Your task to perform on an android device: clear all cookies in the chrome app Image 0: 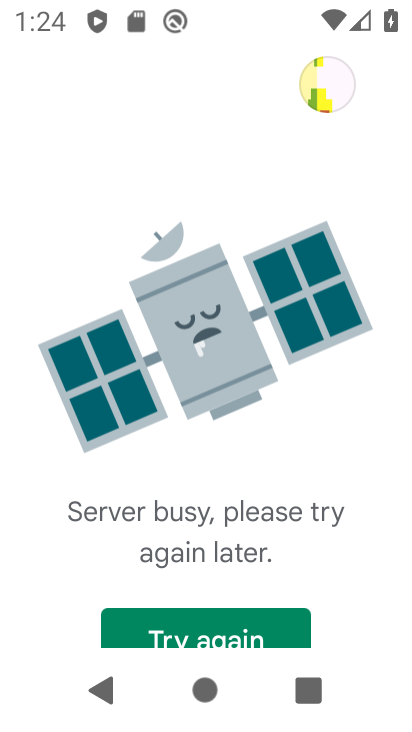
Step 0: press home button
Your task to perform on an android device: clear all cookies in the chrome app Image 1: 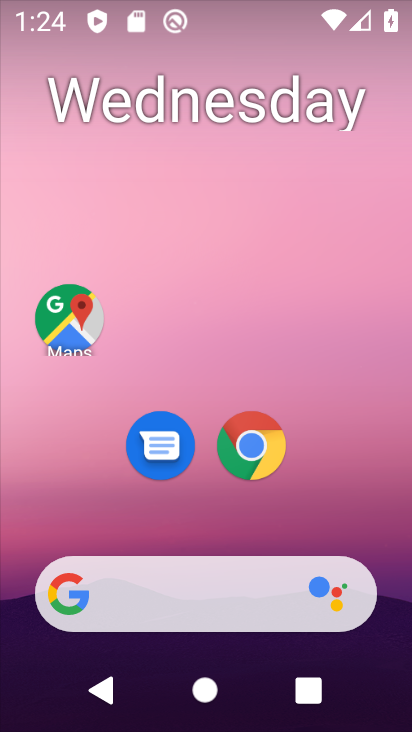
Step 1: drag from (204, 559) to (309, 23)
Your task to perform on an android device: clear all cookies in the chrome app Image 2: 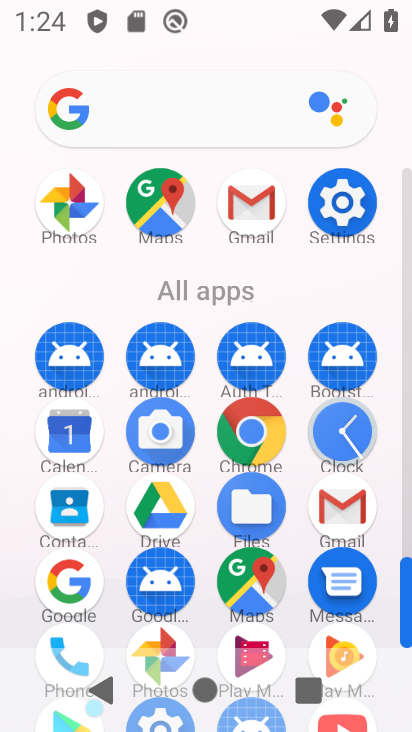
Step 2: click (263, 429)
Your task to perform on an android device: clear all cookies in the chrome app Image 3: 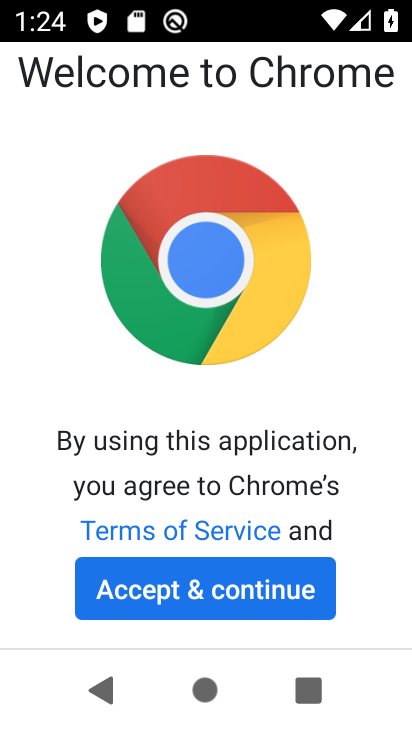
Step 3: click (232, 574)
Your task to perform on an android device: clear all cookies in the chrome app Image 4: 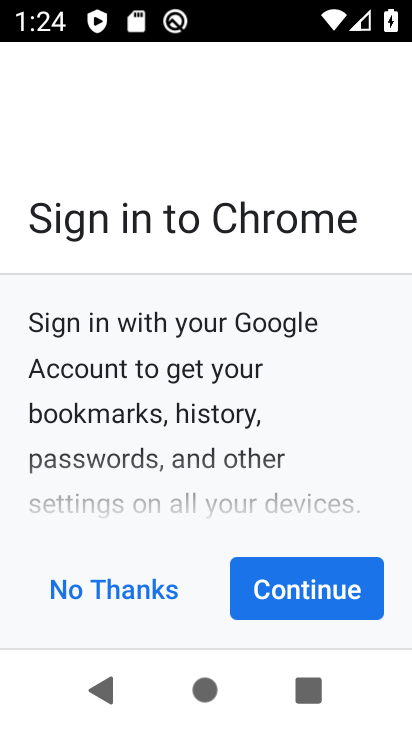
Step 4: click (272, 579)
Your task to perform on an android device: clear all cookies in the chrome app Image 5: 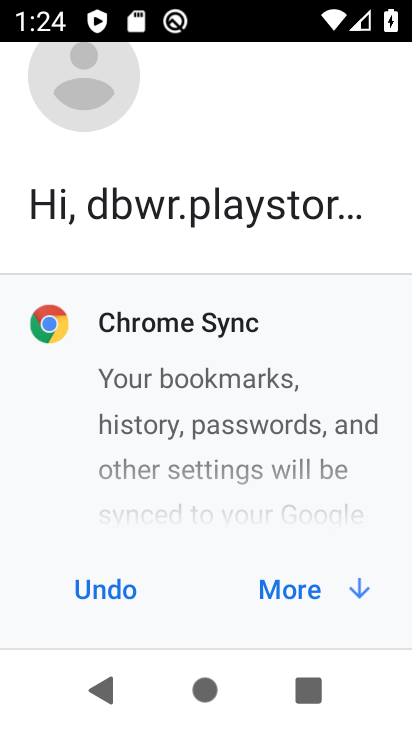
Step 5: click (273, 582)
Your task to perform on an android device: clear all cookies in the chrome app Image 6: 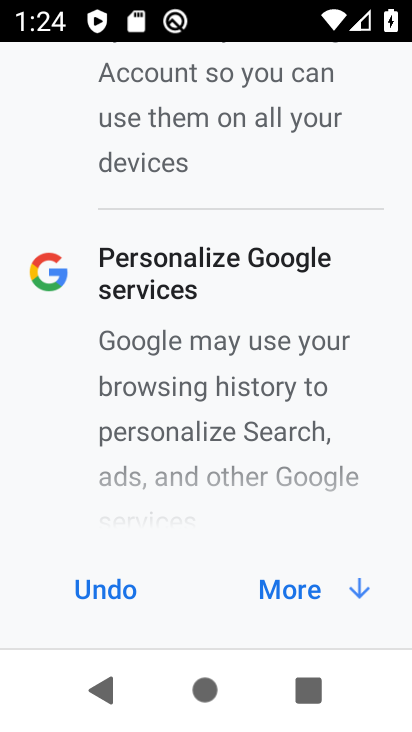
Step 6: click (315, 592)
Your task to perform on an android device: clear all cookies in the chrome app Image 7: 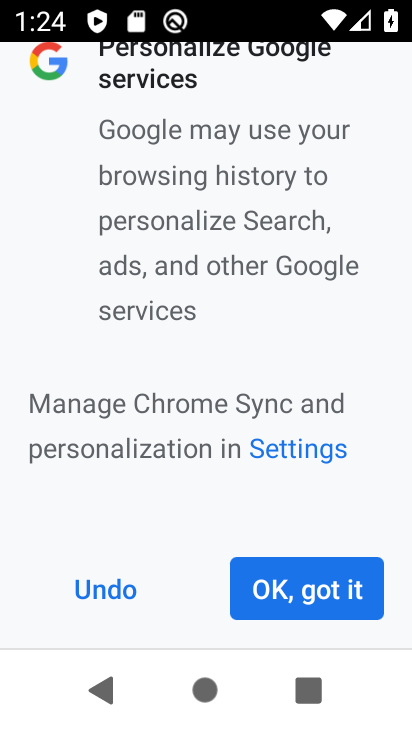
Step 7: click (309, 592)
Your task to perform on an android device: clear all cookies in the chrome app Image 8: 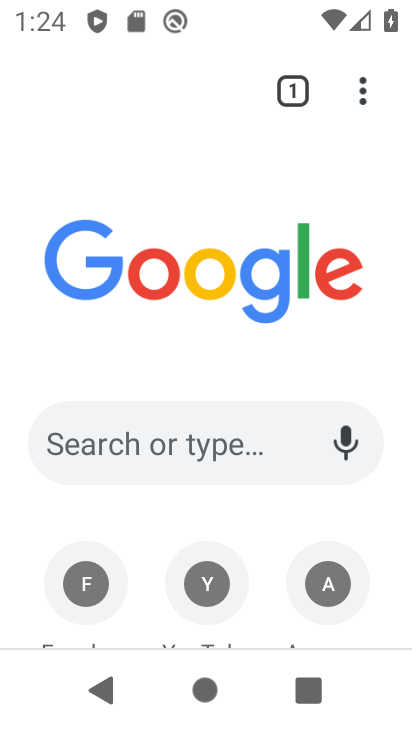
Step 8: click (366, 99)
Your task to perform on an android device: clear all cookies in the chrome app Image 9: 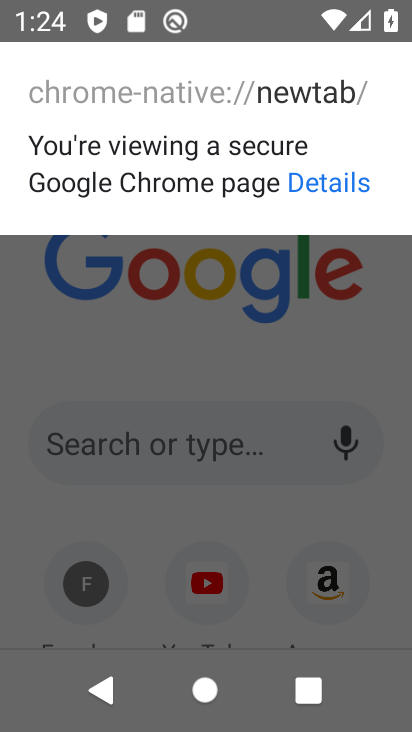
Step 9: click (338, 298)
Your task to perform on an android device: clear all cookies in the chrome app Image 10: 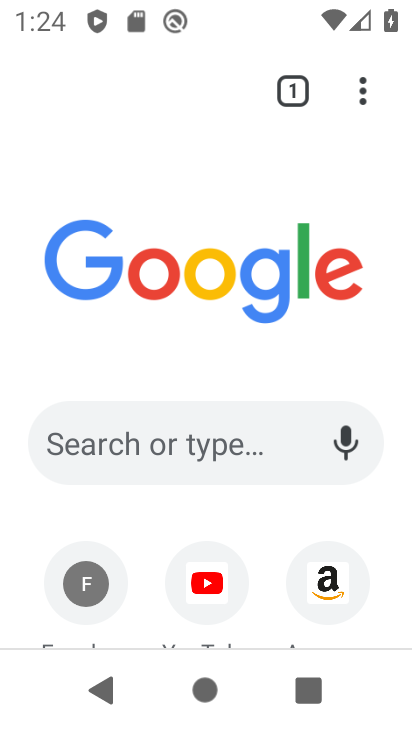
Step 10: click (366, 95)
Your task to perform on an android device: clear all cookies in the chrome app Image 11: 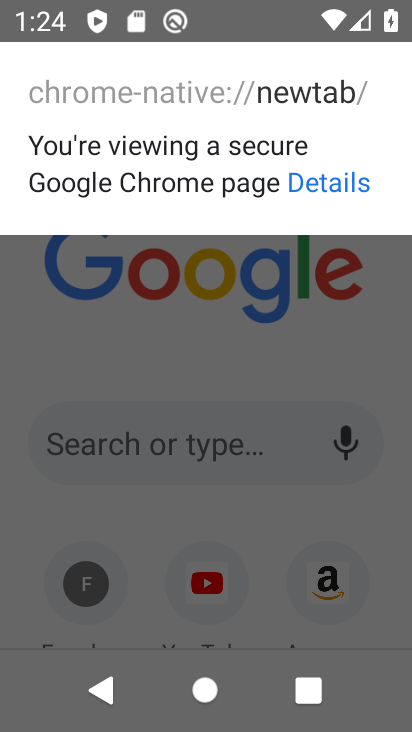
Step 11: click (379, 343)
Your task to perform on an android device: clear all cookies in the chrome app Image 12: 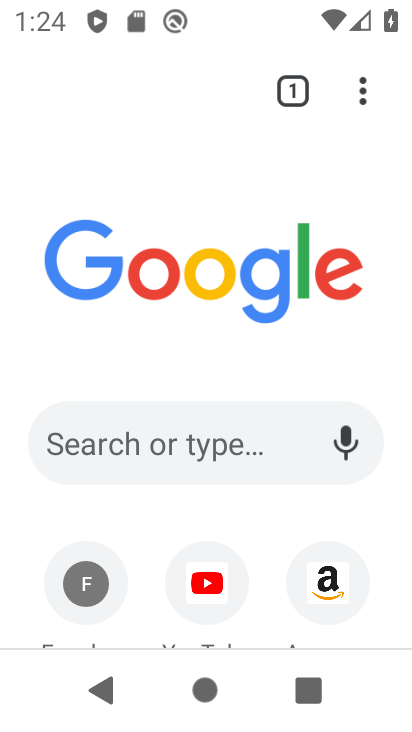
Step 12: drag from (360, 90) to (143, 490)
Your task to perform on an android device: clear all cookies in the chrome app Image 13: 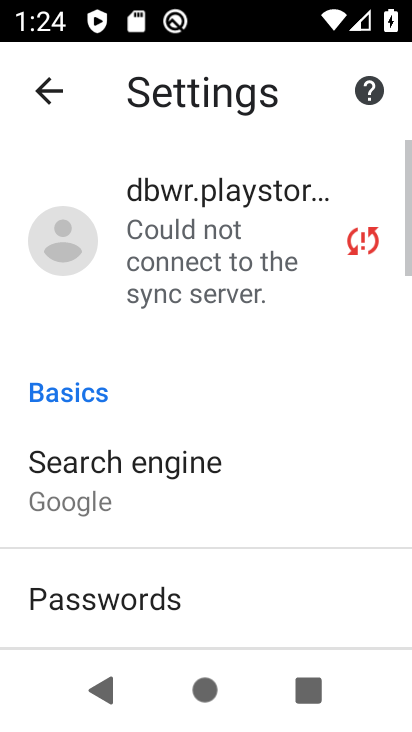
Step 13: drag from (155, 557) to (155, 1)
Your task to perform on an android device: clear all cookies in the chrome app Image 14: 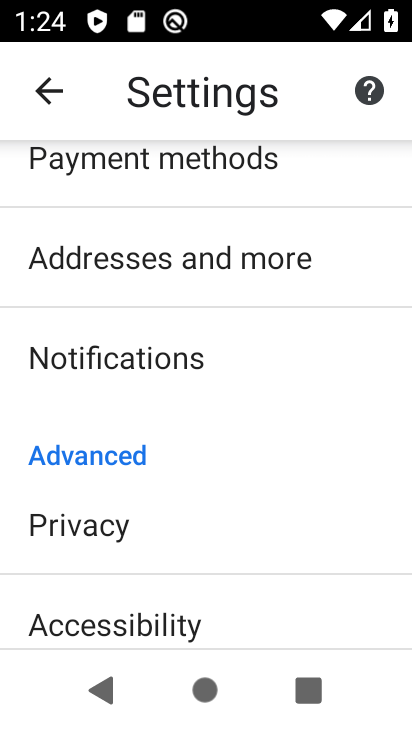
Step 14: drag from (208, 500) to (191, 120)
Your task to perform on an android device: clear all cookies in the chrome app Image 15: 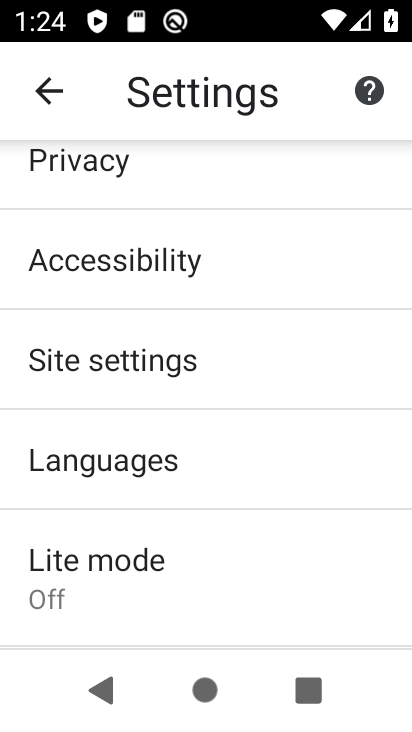
Step 15: click (128, 186)
Your task to perform on an android device: clear all cookies in the chrome app Image 16: 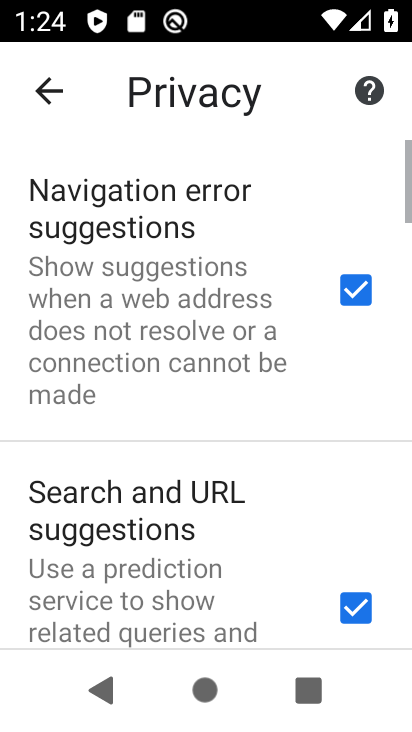
Step 16: drag from (212, 583) to (185, 44)
Your task to perform on an android device: clear all cookies in the chrome app Image 17: 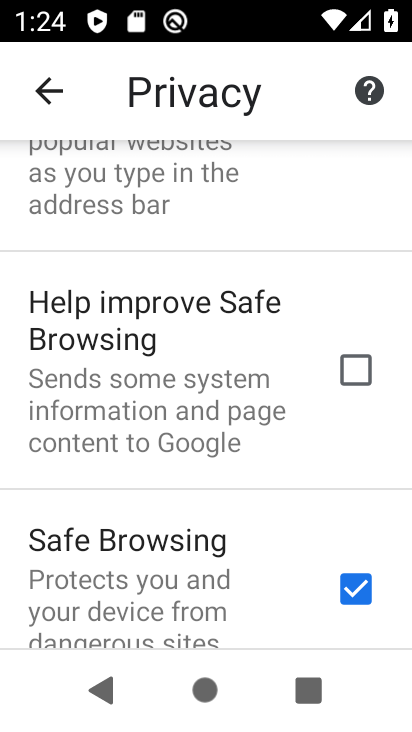
Step 17: drag from (239, 581) to (195, 90)
Your task to perform on an android device: clear all cookies in the chrome app Image 18: 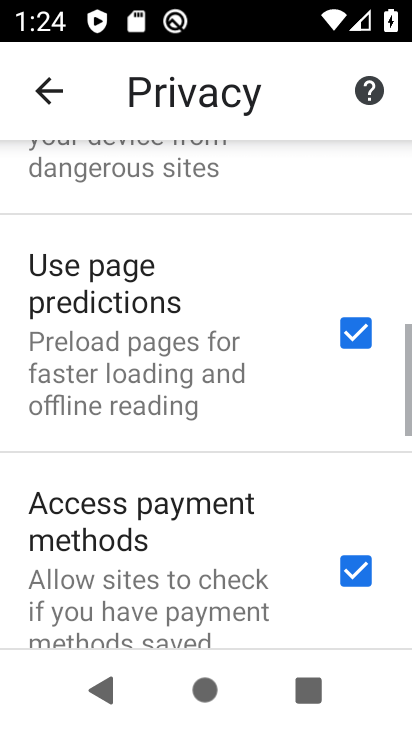
Step 18: drag from (218, 568) to (206, 121)
Your task to perform on an android device: clear all cookies in the chrome app Image 19: 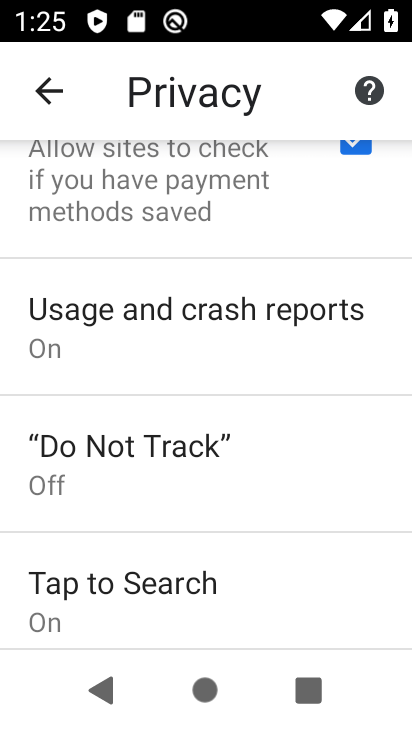
Step 19: drag from (205, 574) to (142, 171)
Your task to perform on an android device: clear all cookies in the chrome app Image 20: 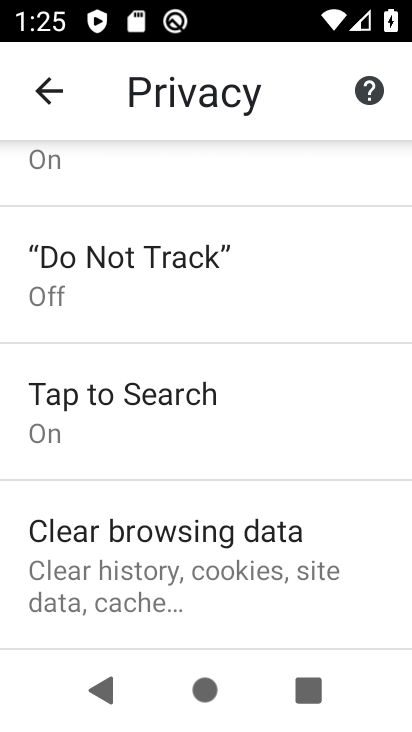
Step 20: click (179, 539)
Your task to perform on an android device: clear all cookies in the chrome app Image 21: 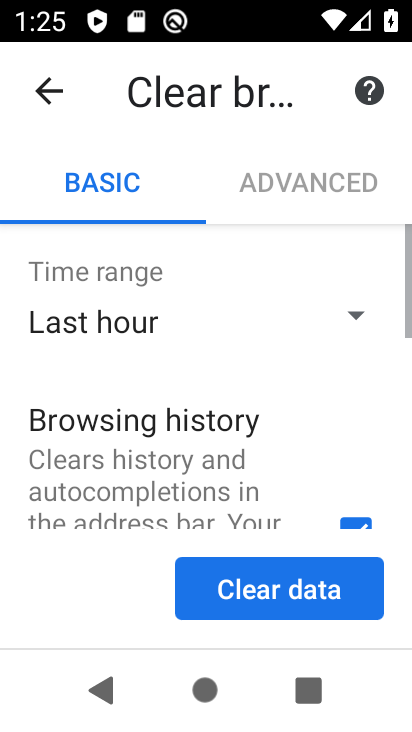
Step 21: drag from (196, 529) to (139, 177)
Your task to perform on an android device: clear all cookies in the chrome app Image 22: 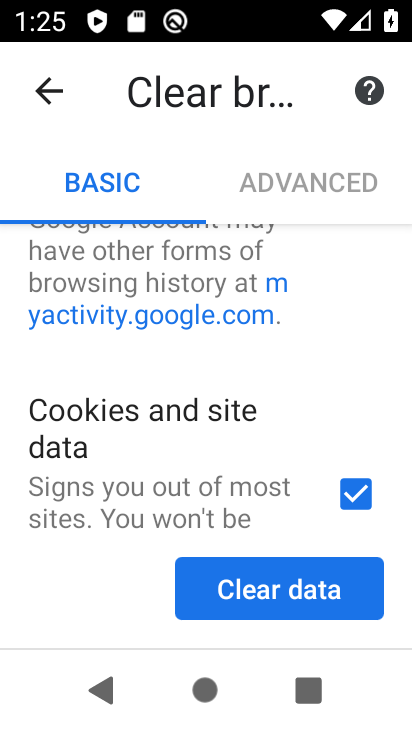
Step 22: click (282, 577)
Your task to perform on an android device: clear all cookies in the chrome app Image 23: 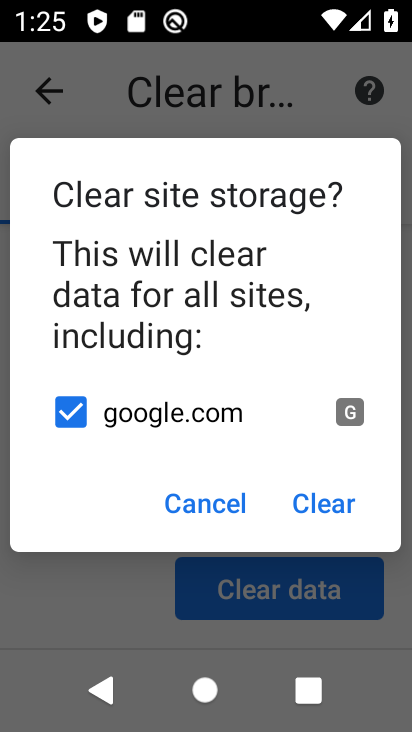
Step 23: click (325, 505)
Your task to perform on an android device: clear all cookies in the chrome app Image 24: 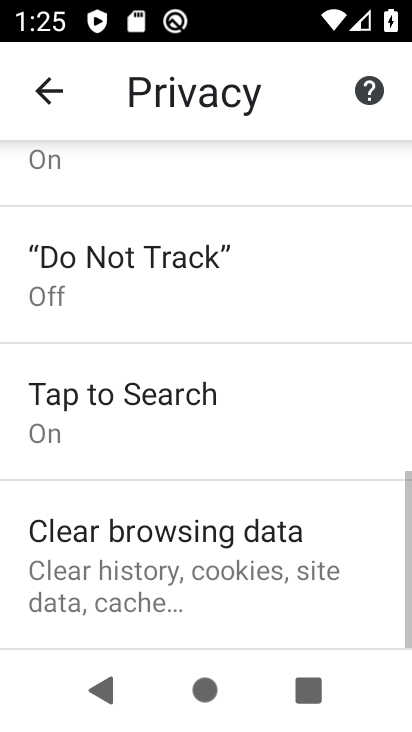
Step 24: task complete